Your task to perform on an android device: clear all cookies in the chrome app Image 0: 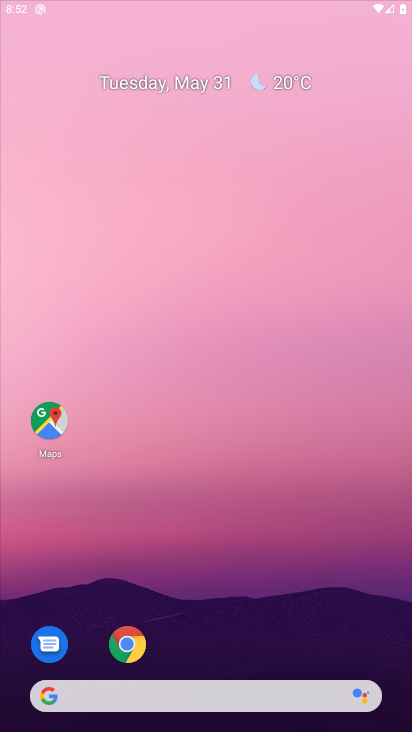
Step 0: press home button
Your task to perform on an android device: clear all cookies in the chrome app Image 1: 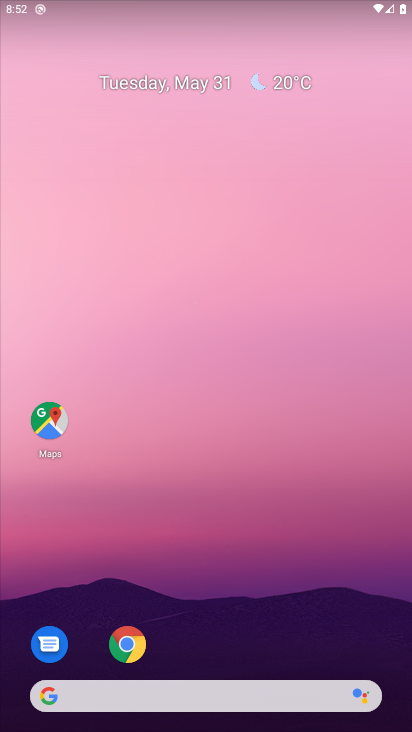
Step 1: click (122, 641)
Your task to perform on an android device: clear all cookies in the chrome app Image 2: 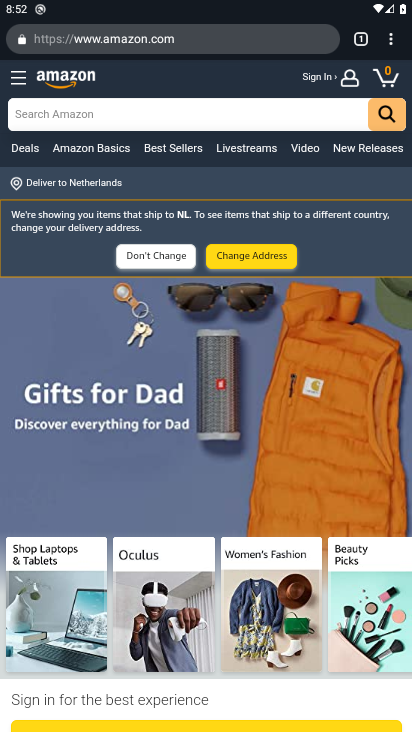
Step 2: click (394, 32)
Your task to perform on an android device: clear all cookies in the chrome app Image 3: 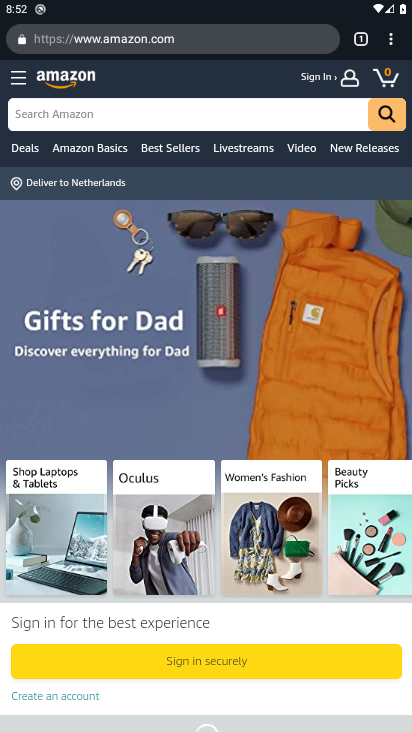
Step 3: click (394, 32)
Your task to perform on an android device: clear all cookies in the chrome app Image 4: 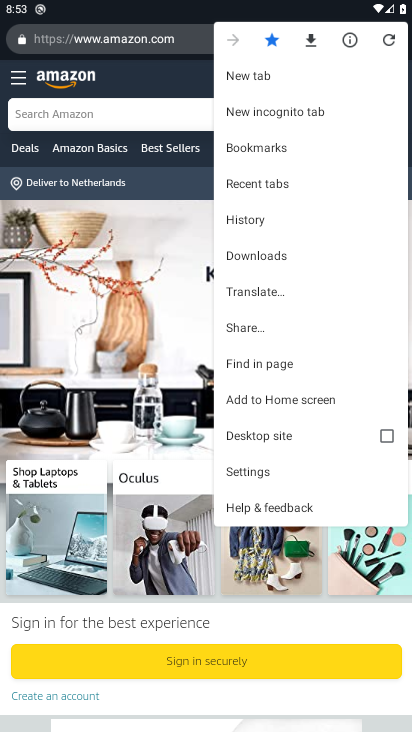
Step 4: click (272, 218)
Your task to perform on an android device: clear all cookies in the chrome app Image 5: 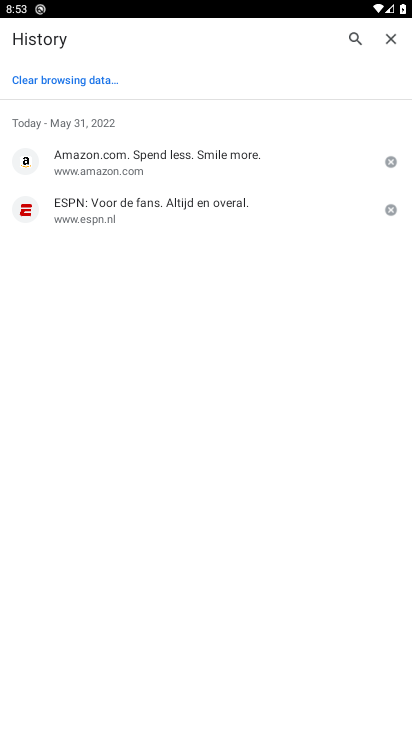
Step 5: click (82, 76)
Your task to perform on an android device: clear all cookies in the chrome app Image 6: 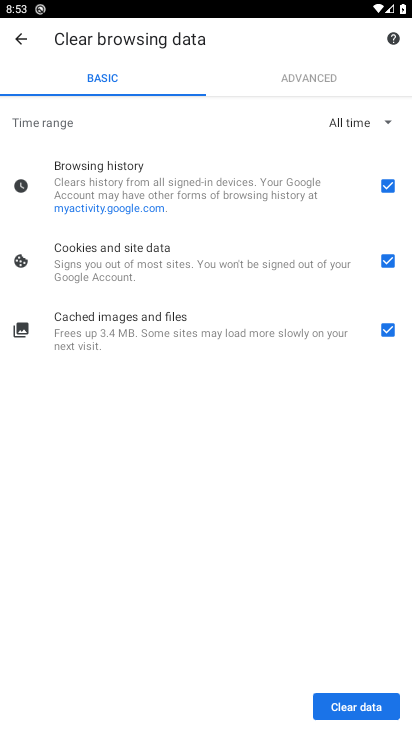
Step 6: click (381, 180)
Your task to perform on an android device: clear all cookies in the chrome app Image 7: 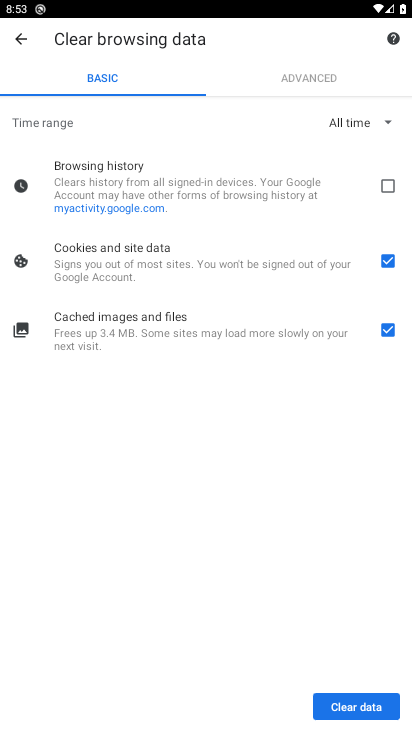
Step 7: click (388, 325)
Your task to perform on an android device: clear all cookies in the chrome app Image 8: 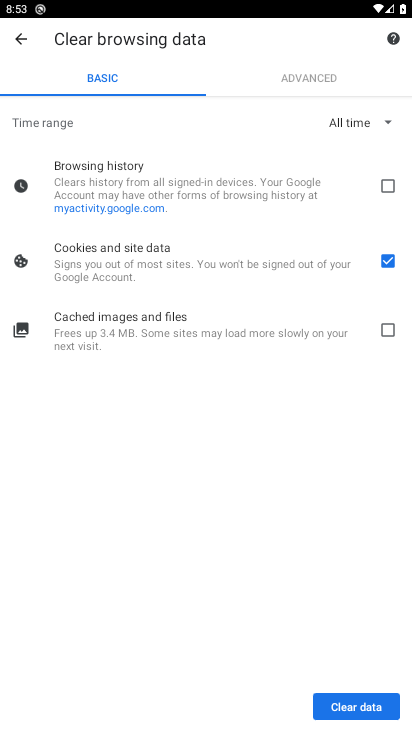
Step 8: click (346, 703)
Your task to perform on an android device: clear all cookies in the chrome app Image 9: 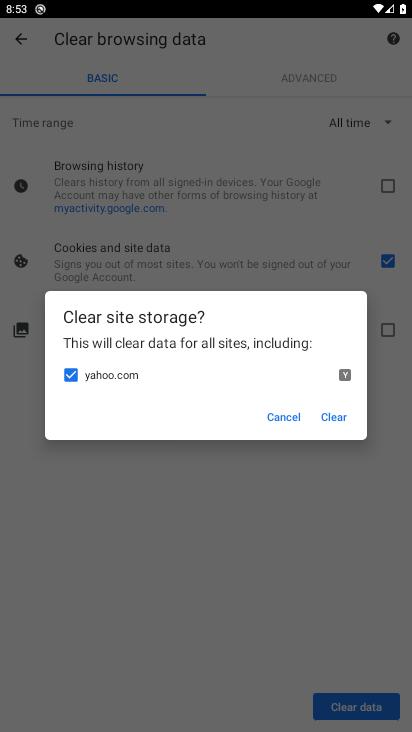
Step 9: click (330, 406)
Your task to perform on an android device: clear all cookies in the chrome app Image 10: 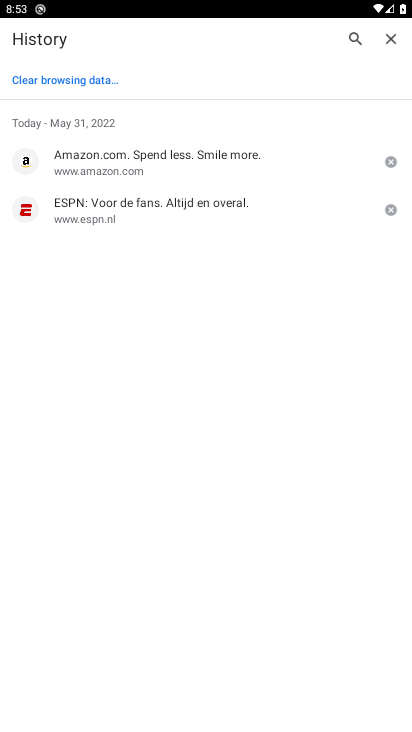
Step 10: task complete